Your task to perform on an android device: Go to CNN.com Image 0: 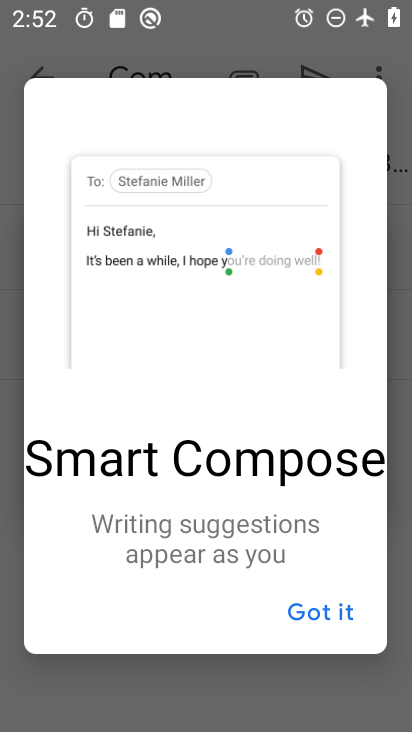
Step 0: press home button
Your task to perform on an android device: Go to CNN.com Image 1: 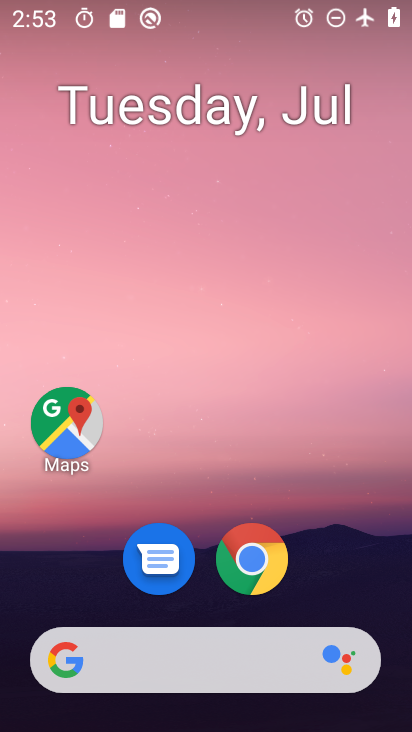
Step 1: drag from (366, 560) to (379, 144)
Your task to perform on an android device: Go to CNN.com Image 2: 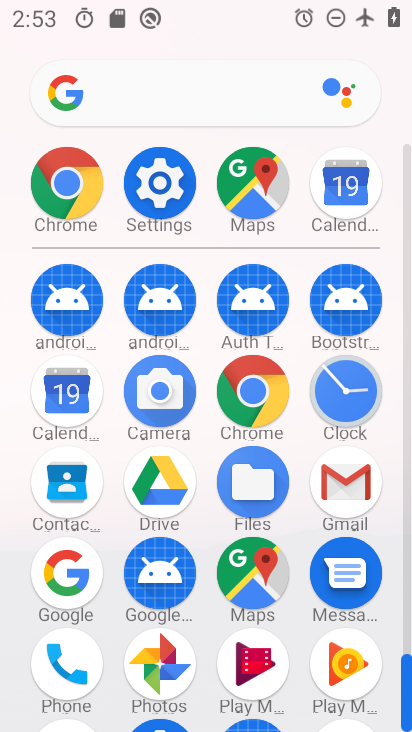
Step 2: click (263, 381)
Your task to perform on an android device: Go to CNN.com Image 3: 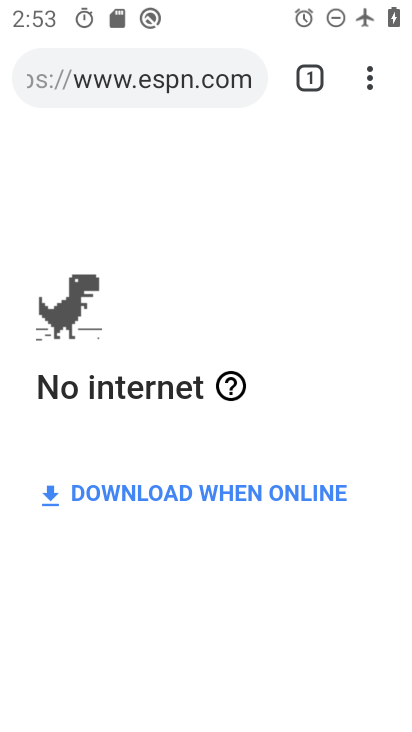
Step 3: click (206, 81)
Your task to perform on an android device: Go to CNN.com Image 4: 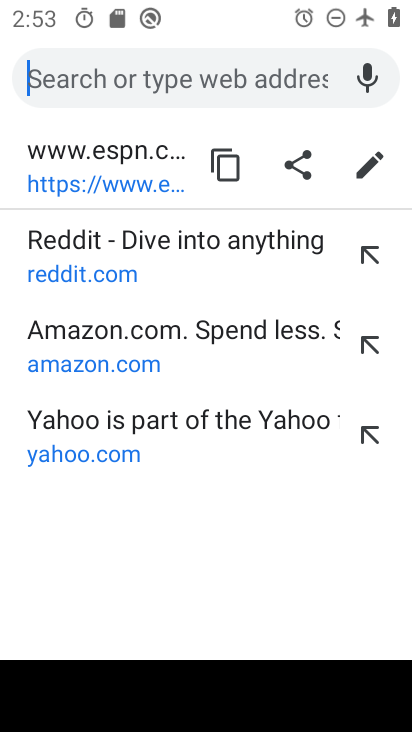
Step 4: type "cnn.com"
Your task to perform on an android device: Go to CNN.com Image 5: 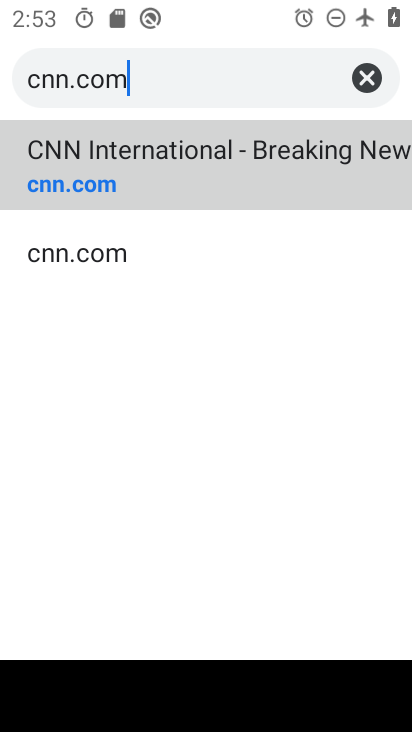
Step 5: click (238, 194)
Your task to perform on an android device: Go to CNN.com Image 6: 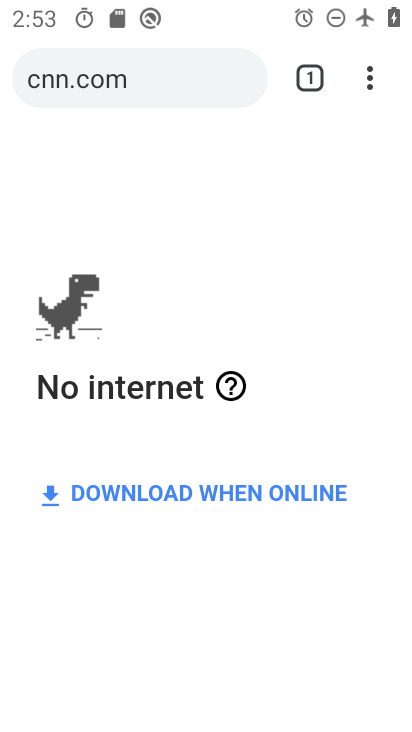
Step 6: task complete